Your task to perform on an android device: clear all cookies in the chrome app Image 0: 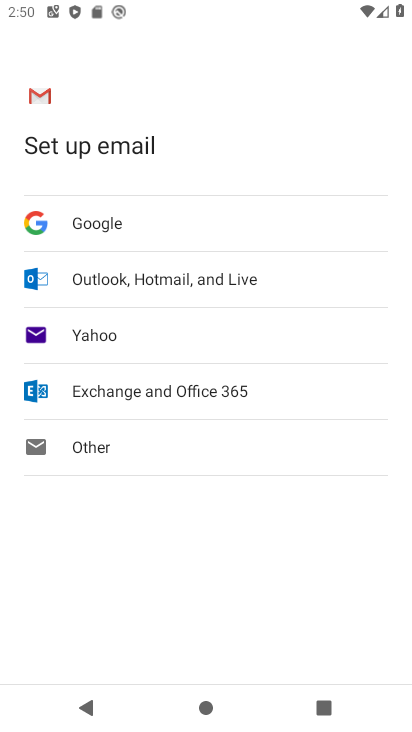
Step 0: press home button
Your task to perform on an android device: clear all cookies in the chrome app Image 1: 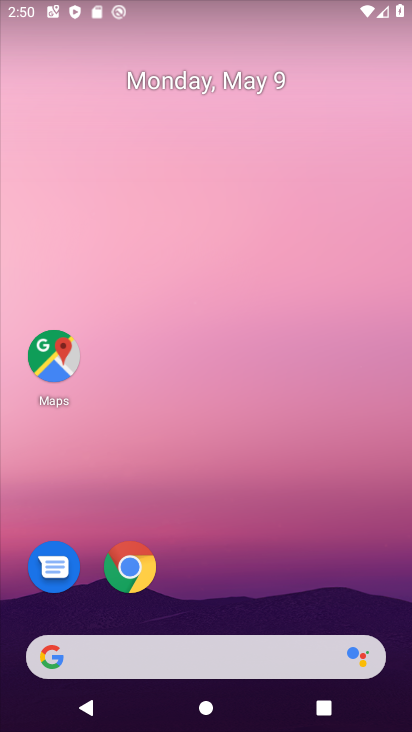
Step 1: click (128, 564)
Your task to perform on an android device: clear all cookies in the chrome app Image 2: 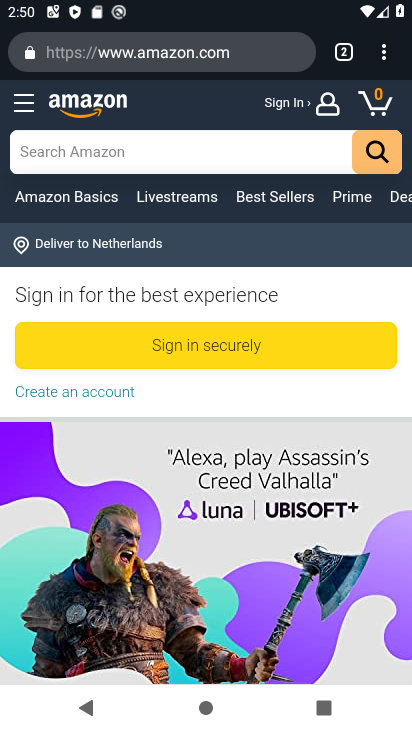
Step 2: click (395, 52)
Your task to perform on an android device: clear all cookies in the chrome app Image 3: 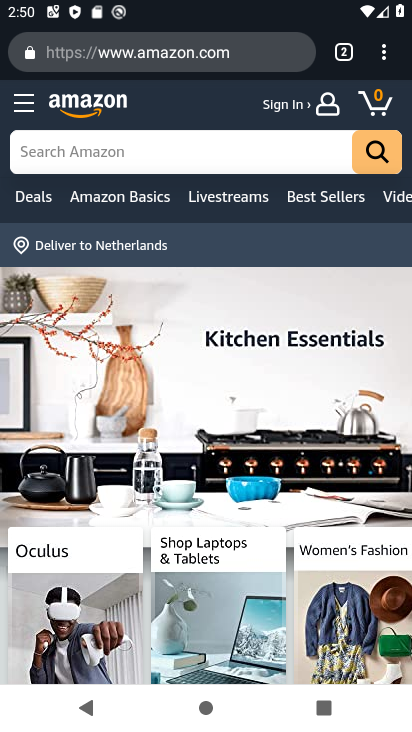
Step 3: click (398, 52)
Your task to perform on an android device: clear all cookies in the chrome app Image 4: 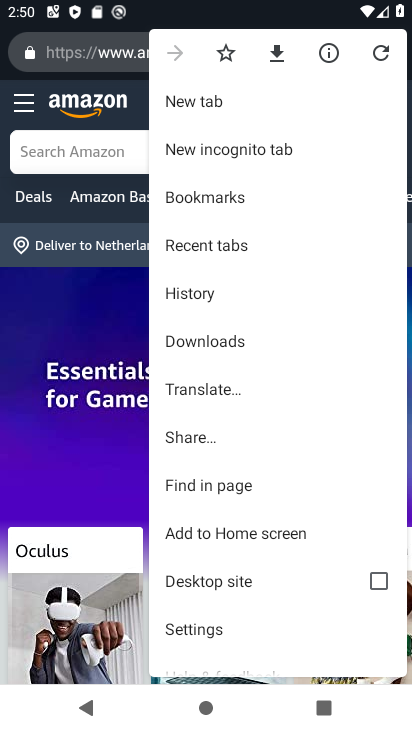
Step 4: click (182, 302)
Your task to perform on an android device: clear all cookies in the chrome app Image 5: 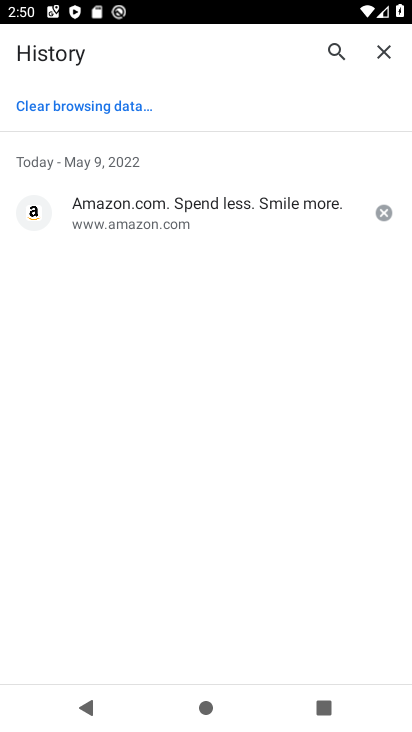
Step 5: click (86, 116)
Your task to perform on an android device: clear all cookies in the chrome app Image 6: 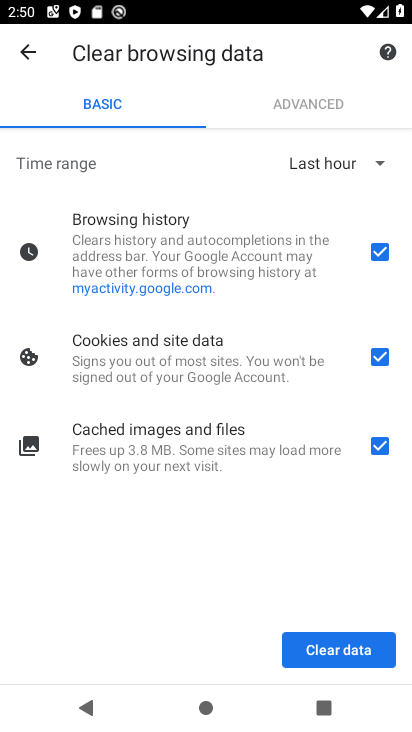
Step 6: click (300, 637)
Your task to perform on an android device: clear all cookies in the chrome app Image 7: 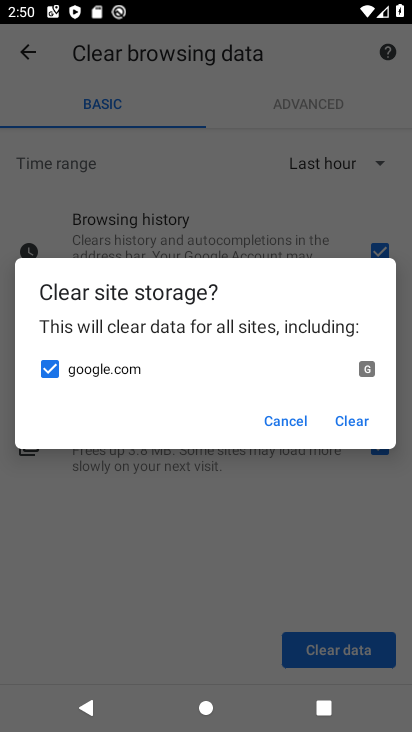
Step 7: click (341, 411)
Your task to perform on an android device: clear all cookies in the chrome app Image 8: 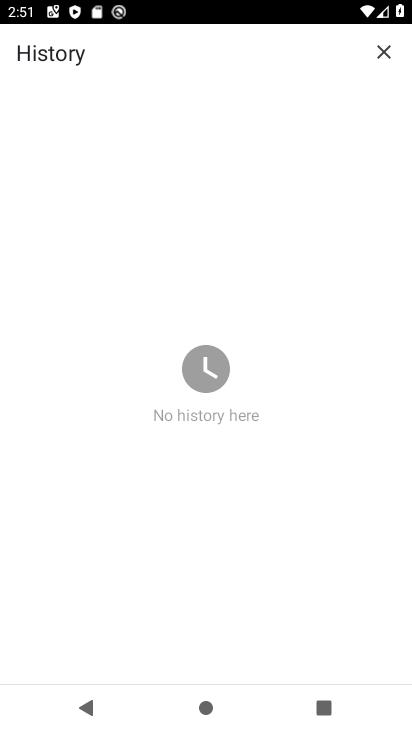
Step 8: task complete